Your task to perform on an android device: Search for Italian restaurants on Maps Image 0: 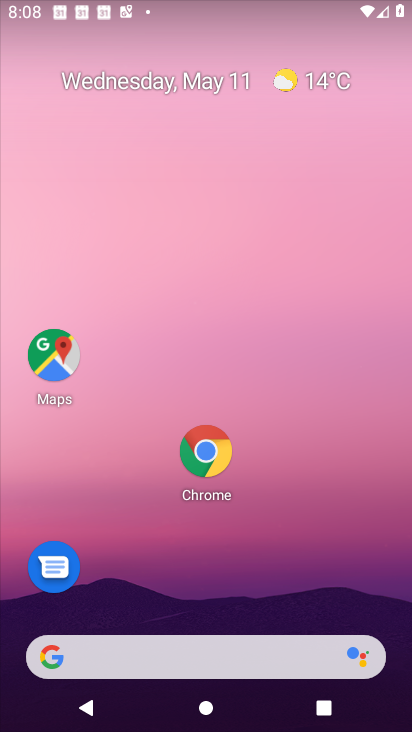
Step 0: click (45, 362)
Your task to perform on an android device: Search for Italian restaurants on Maps Image 1: 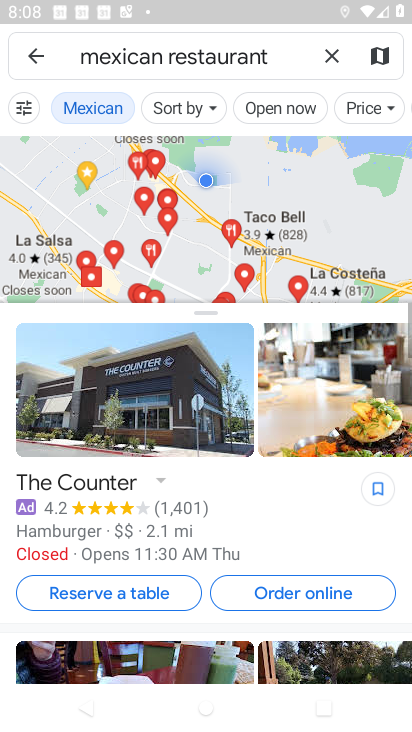
Step 1: click (331, 60)
Your task to perform on an android device: Search for Italian restaurants on Maps Image 2: 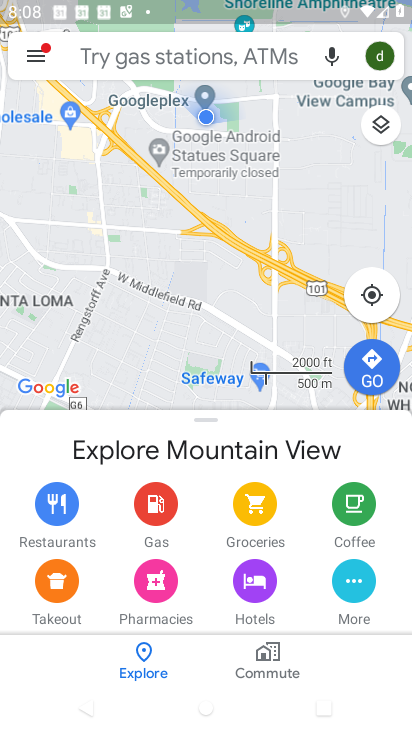
Step 2: click (210, 49)
Your task to perform on an android device: Search for Italian restaurants on Maps Image 3: 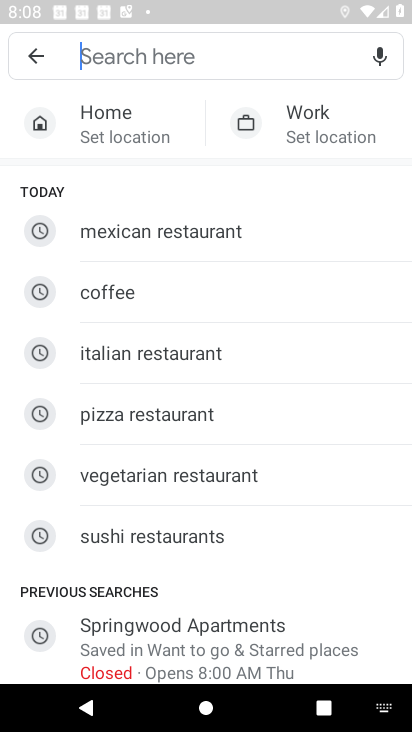
Step 3: click (179, 349)
Your task to perform on an android device: Search for Italian restaurants on Maps Image 4: 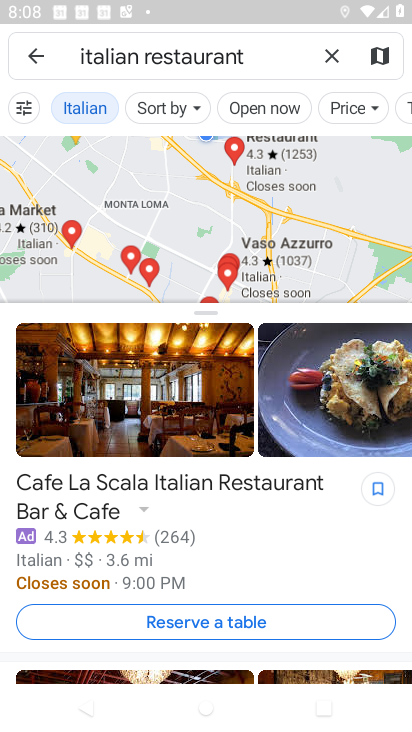
Step 4: task complete